Your task to perform on an android device: Set the phone to "Do not disturb". Image 0: 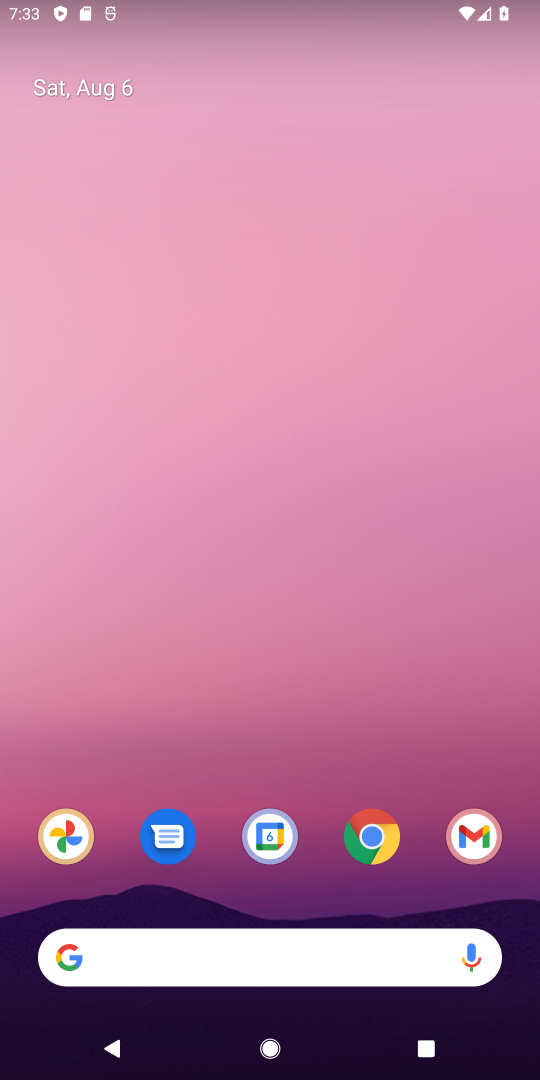
Step 0: drag from (191, 945) to (285, 316)
Your task to perform on an android device: Set the phone to "Do not disturb". Image 1: 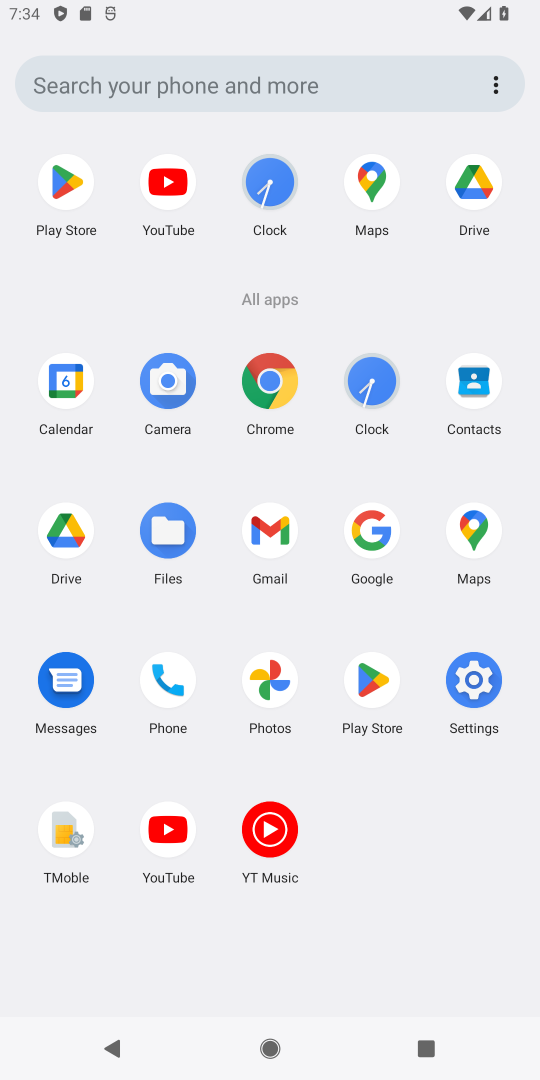
Step 1: click (474, 682)
Your task to perform on an android device: Set the phone to "Do not disturb". Image 2: 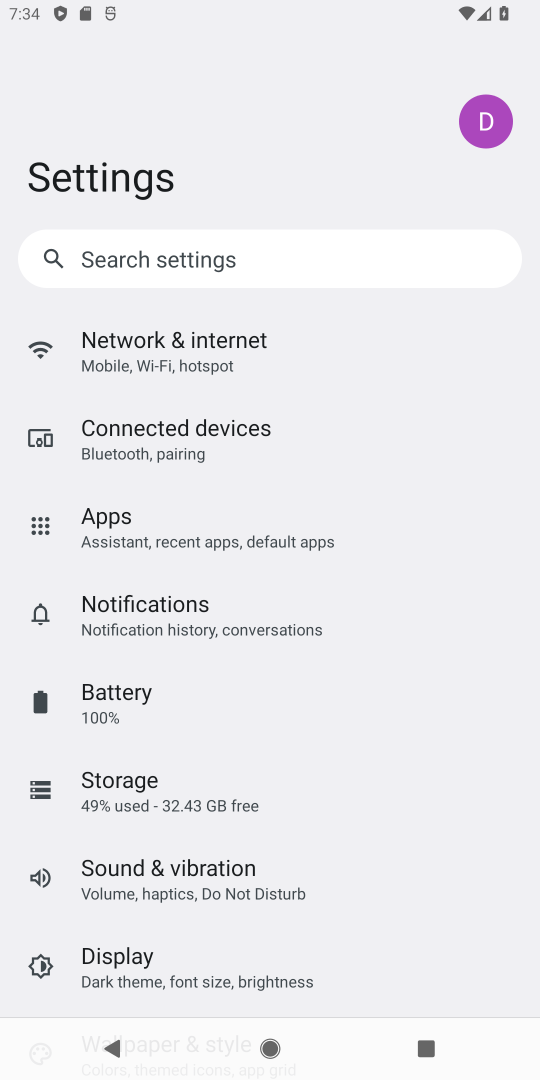
Step 2: click (246, 887)
Your task to perform on an android device: Set the phone to "Do not disturb". Image 3: 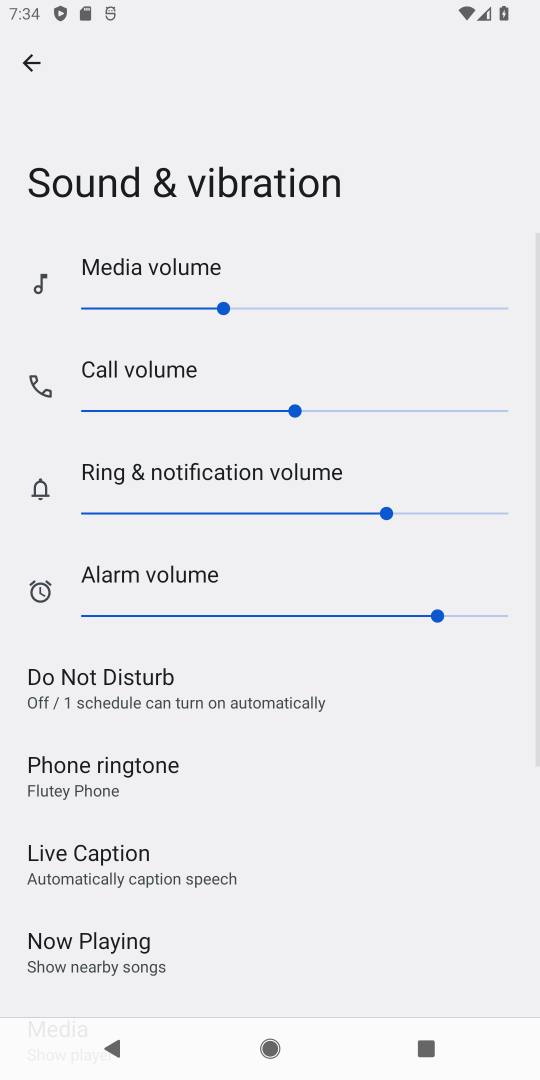
Step 3: click (106, 714)
Your task to perform on an android device: Set the phone to "Do not disturb". Image 4: 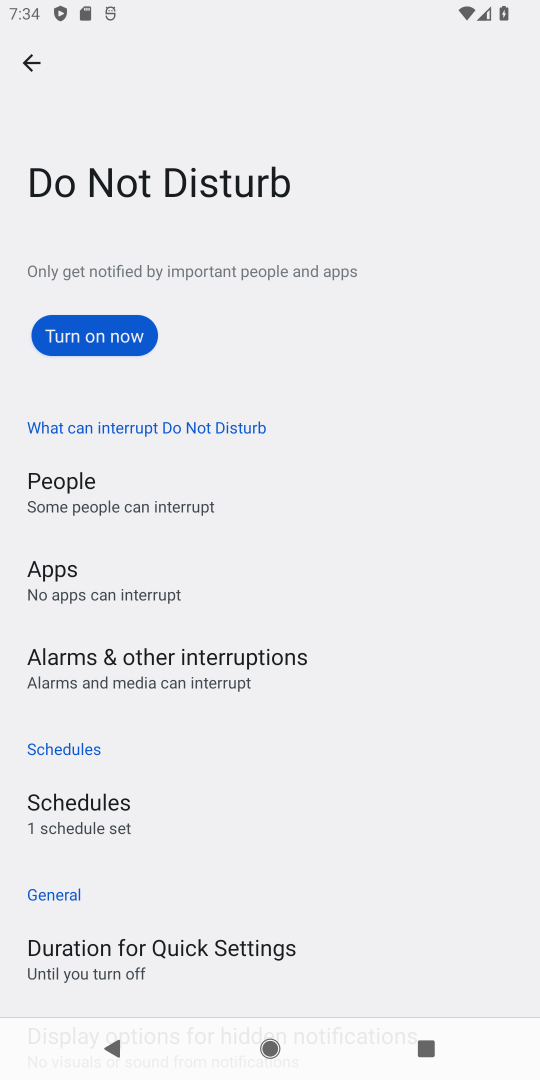
Step 4: click (106, 692)
Your task to perform on an android device: Set the phone to "Do not disturb". Image 5: 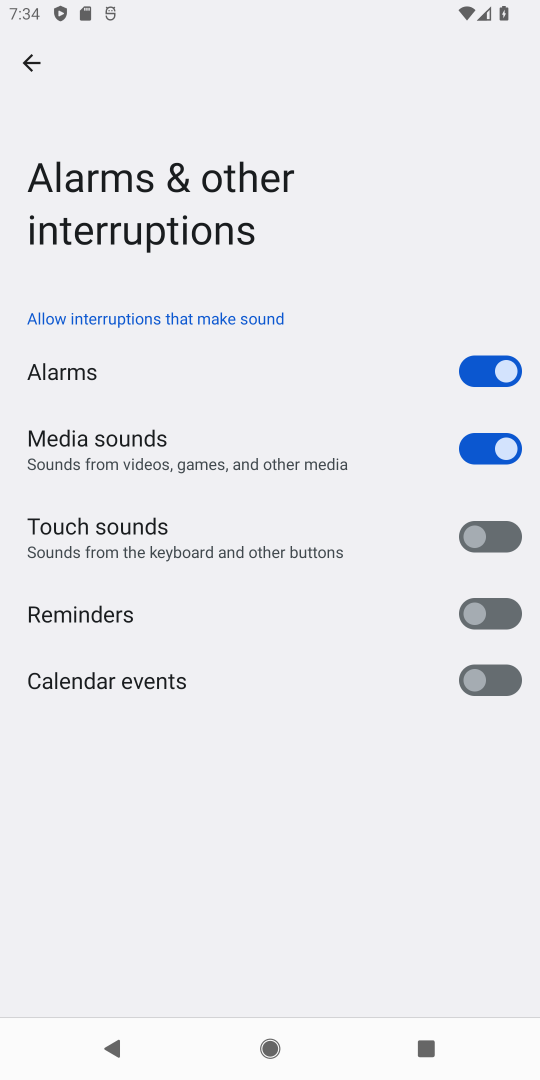
Step 5: click (31, 57)
Your task to perform on an android device: Set the phone to "Do not disturb". Image 6: 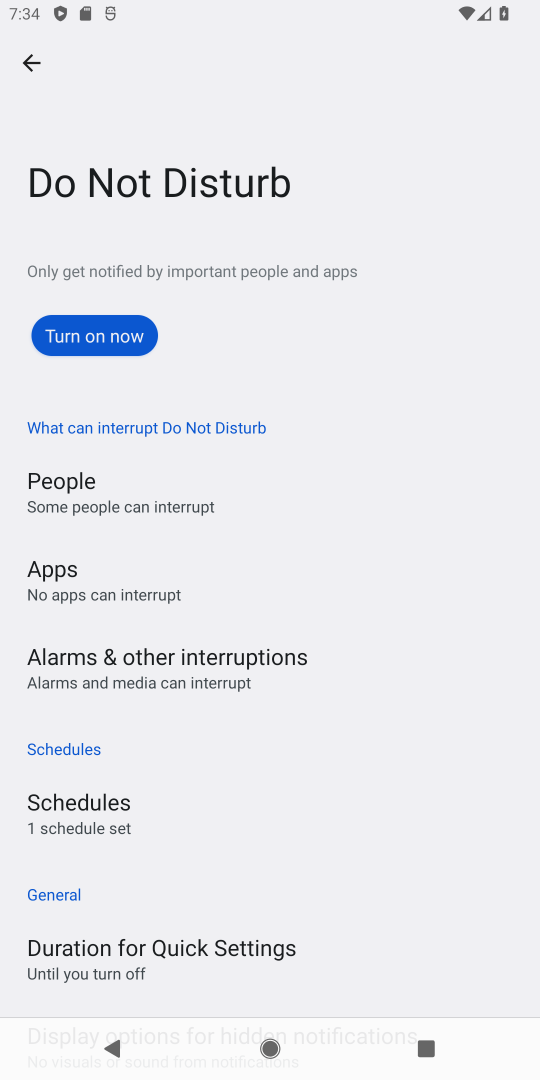
Step 6: click (83, 329)
Your task to perform on an android device: Set the phone to "Do not disturb". Image 7: 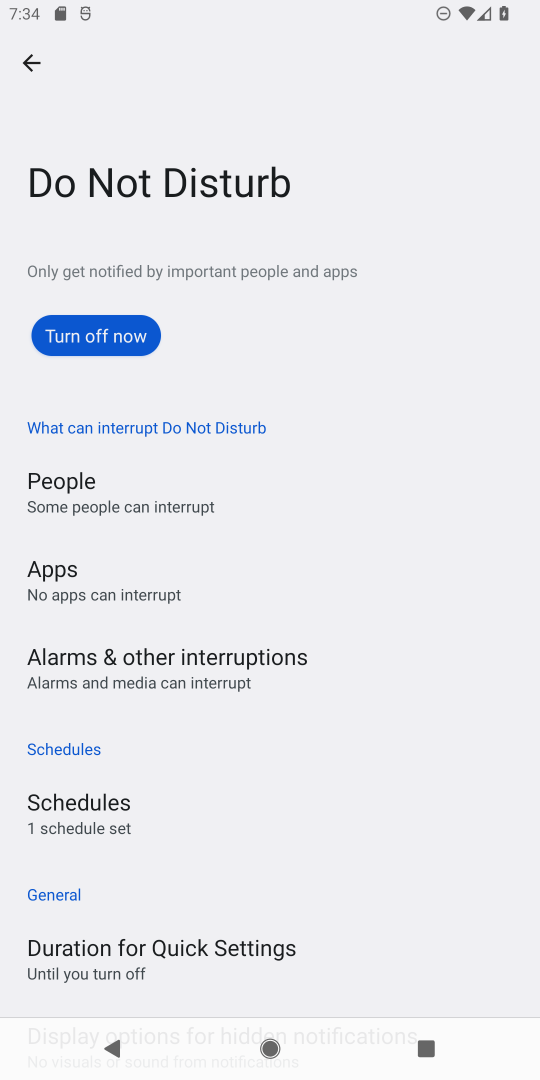
Step 7: task complete